Your task to perform on an android device: Show me popular games on the Play Store Image 0: 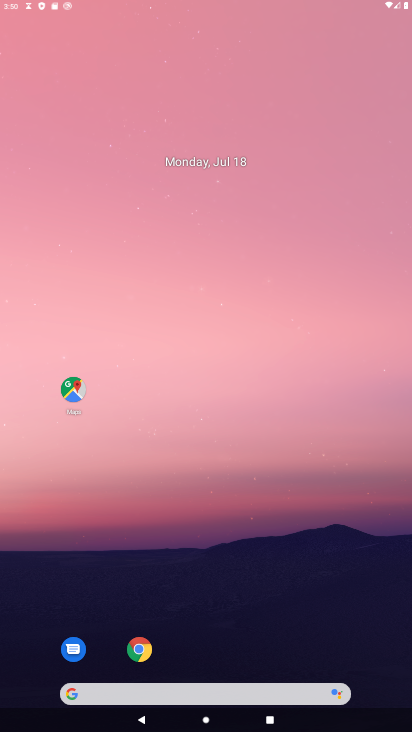
Step 0: press home button
Your task to perform on an android device: Show me popular games on the Play Store Image 1: 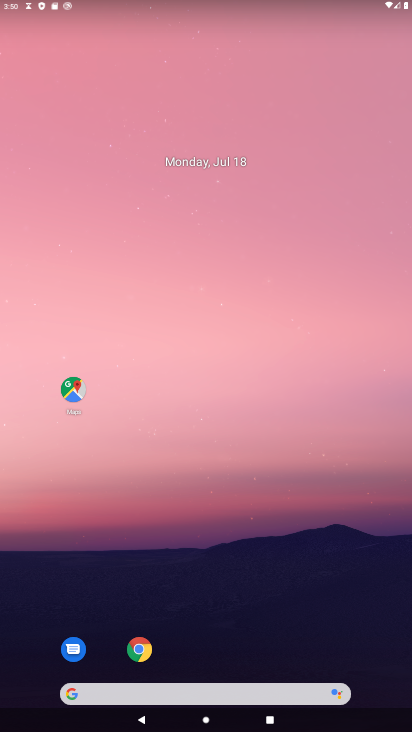
Step 1: press home button
Your task to perform on an android device: Show me popular games on the Play Store Image 2: 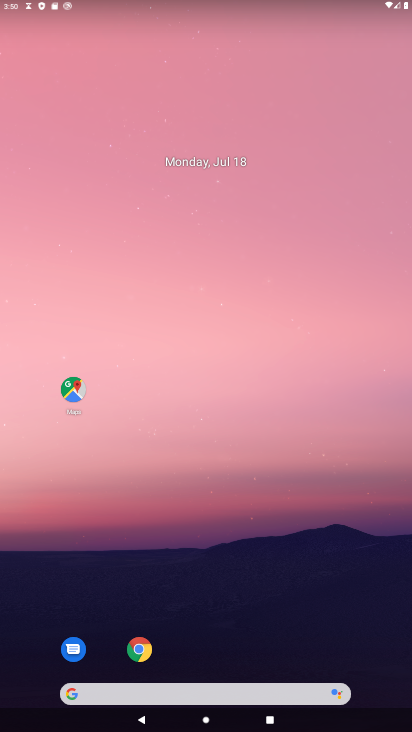
Step 2: drag from (345, 622) to (337, 104)
Your task to perform on an android device: Show me popular games on the Play Store Image 3: 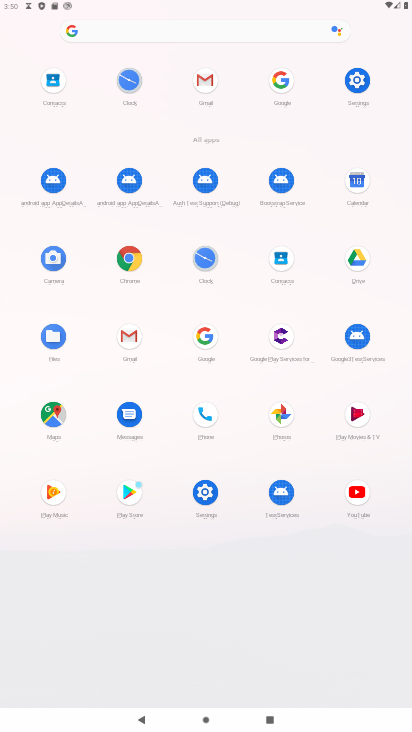
Step 3: click (120, 496)
Your task to perform on an android device: Show me popular games on the Play Store Image 4: 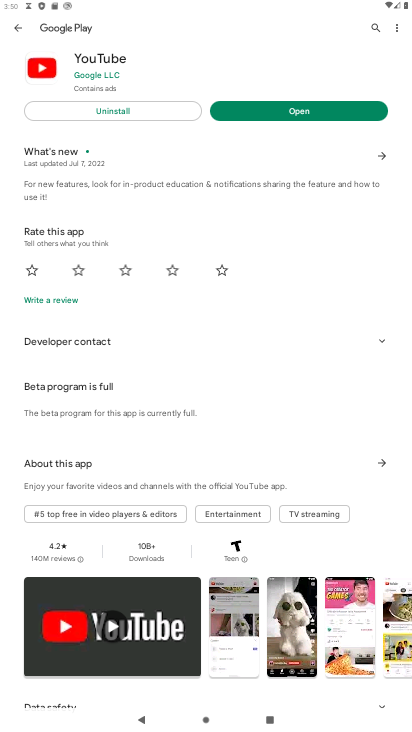
Step 4: click (15, 28)
Your task to perform on an android device: Show me popular games on the Play Store Image 5: 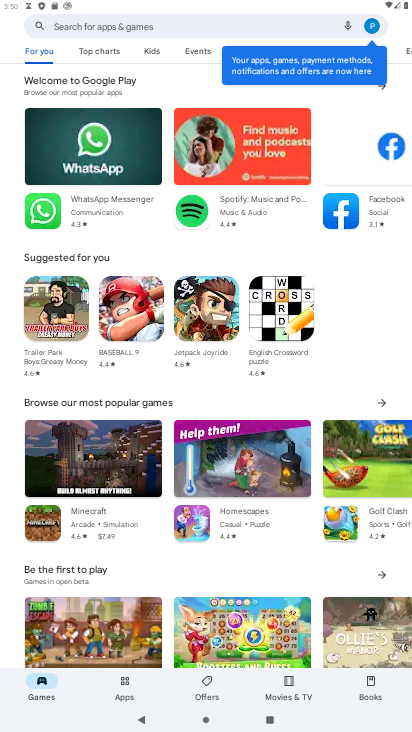
Step 5: task complete